Your task to perform on an android device: Open eBay Image 0: 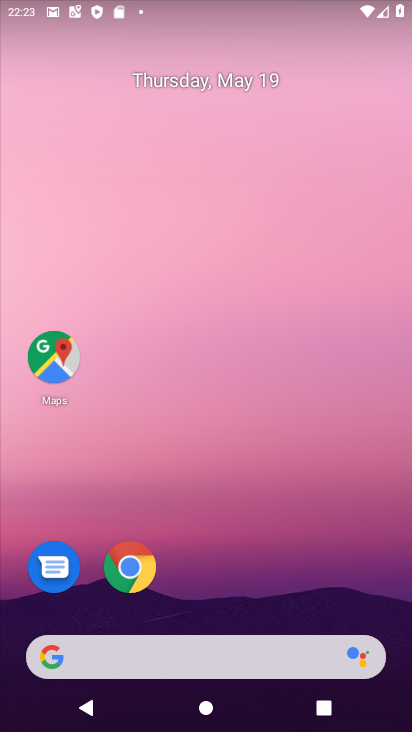
Step 0: click (129, 563)
Your task to perform on an android device: Open eBay Image 1: 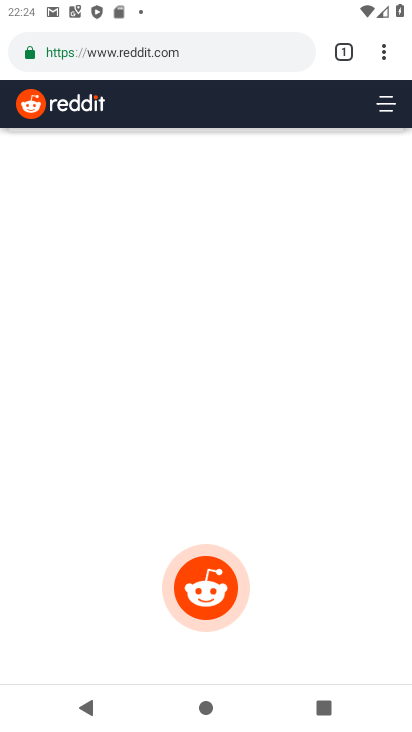
Step 1: click (340, 45)
Your task to perform on an android device: Open eBay Image 2: 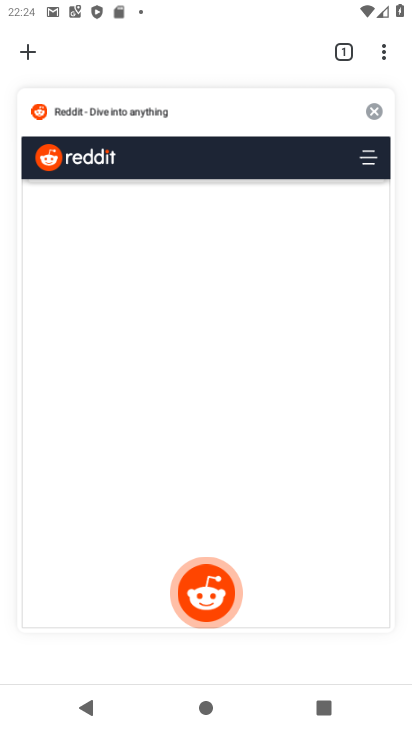
Step 2: click (376, 106)
Your task to perform on an android device: Open eBay Image 3: 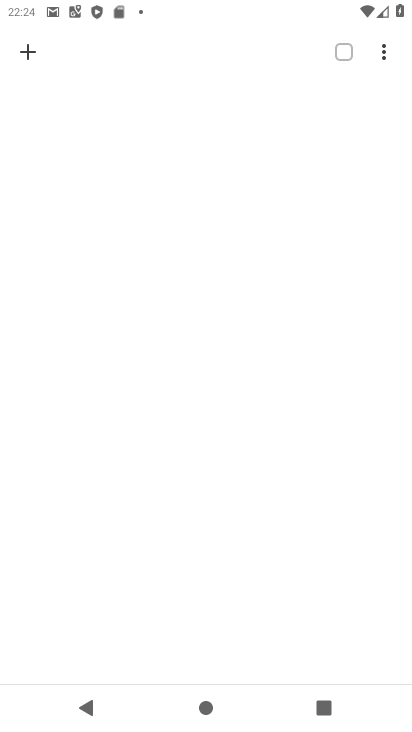
Step 3: click (35, 56)
Your task to perform on an android device: Open eBay Image 4: 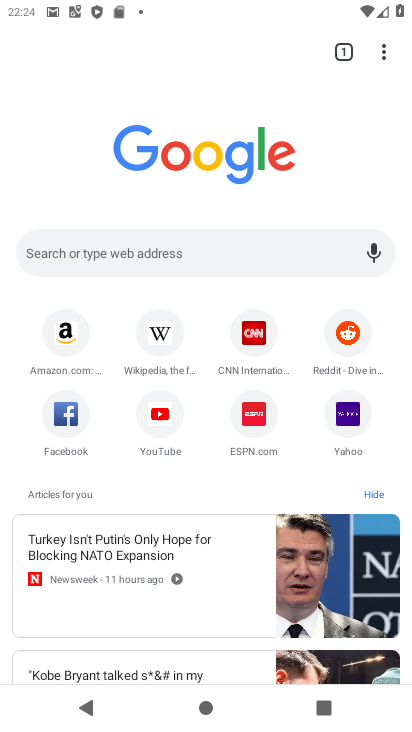
Step 4: click (137, 251)
Your task to perform on an android device: Open eBay Image 5: 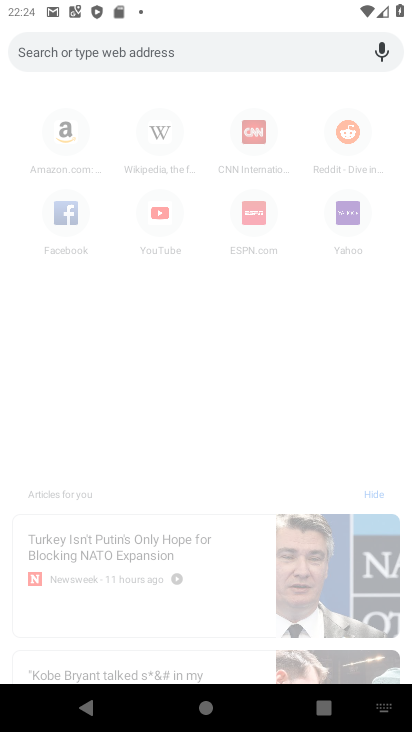
Step 5: type "ebay"
Your task to perform on an android device: Open eBay Image 6: 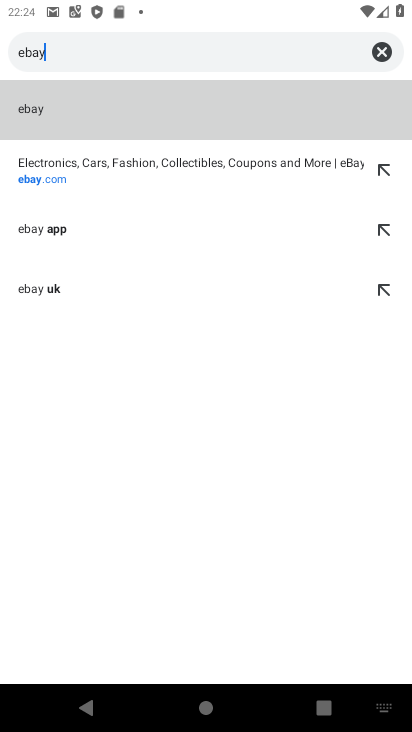
Step 6: click (77, 177)
Your task to perform on an android device: Open eBay Image 7: 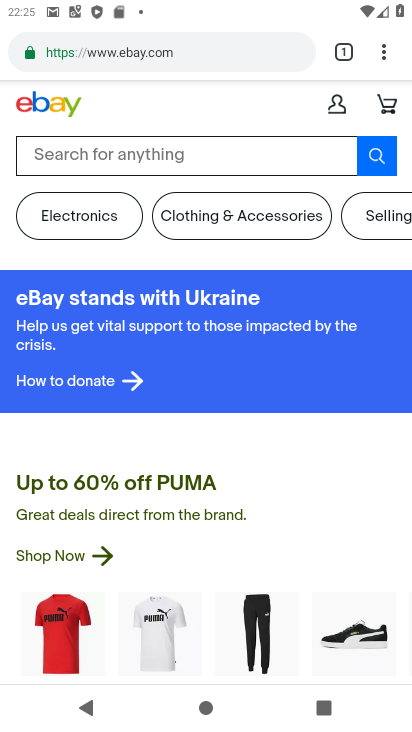
Step 7: task complete